Your task to perform on an android device: Play the last video I watched on Youtube Image 0: 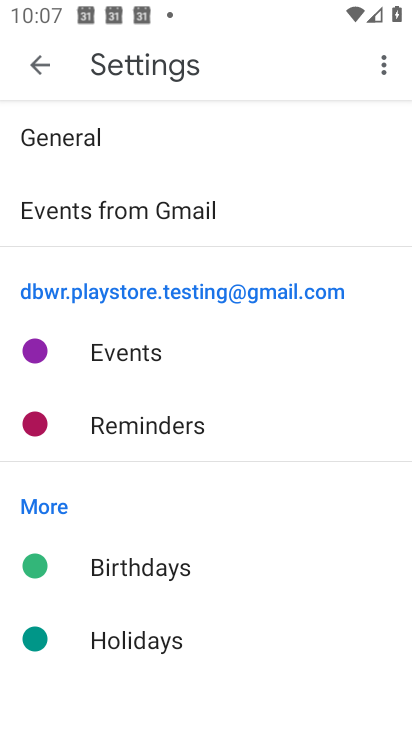
Step 0: press home button
Your task to perform on an android device: Play the last video I watched on Youtube Image 1: 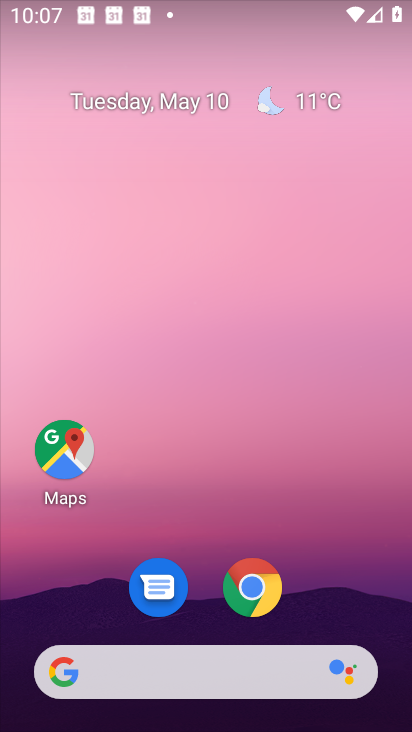
Step 1: drag from (363, 594) to (334, 205)
Your task to perform on an android device: Play the last video I watched on Youtube Image 2: 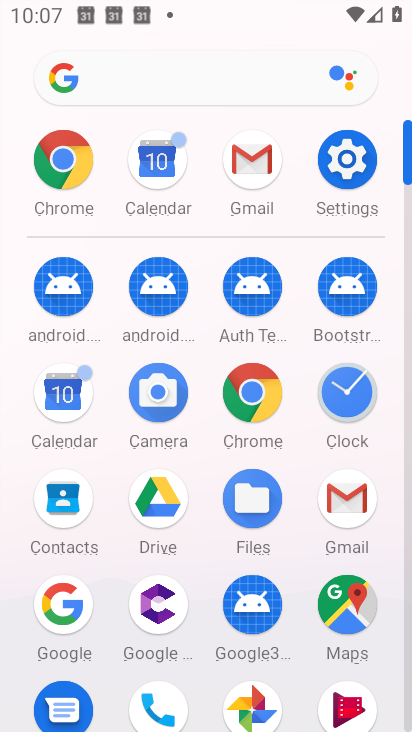
Step 2: drag from (295, 665) to (295, 202)
Your task to perform on an android device: Play the last video I watched on Youtube Image 3: 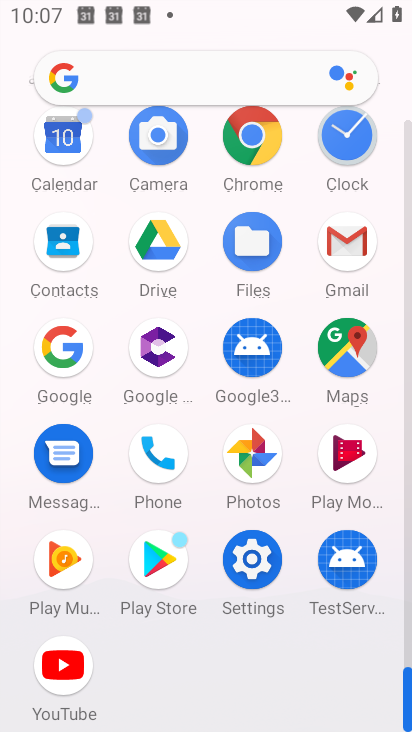
Step 3: click (77, 679)
Your task to perform on an android device: Play the last video I watched on Youtube Image 4: 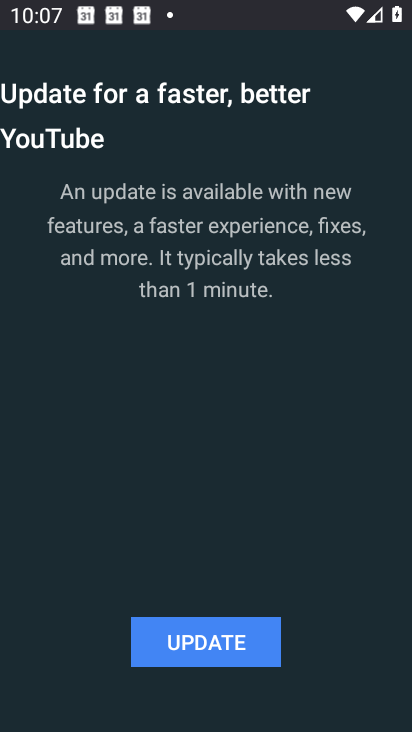
Step 4: click (213, 652)
Your task to perform on an android device: Play the last video I watched on Youtube Image 5: 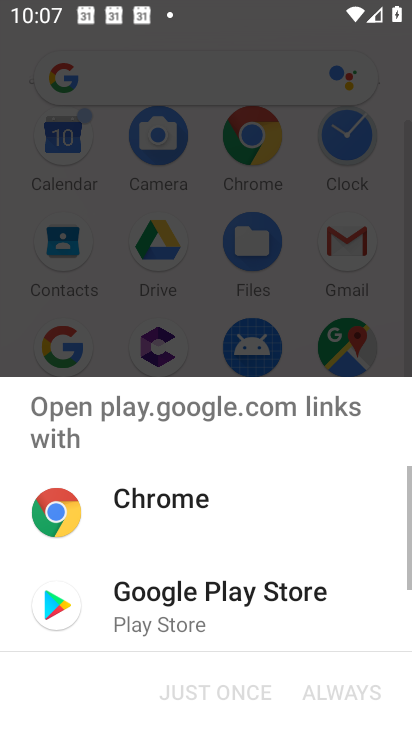
Step 5: click (198, 627)
Your task to perform on an android device: Play the last video I watched on Youtube Image 6: 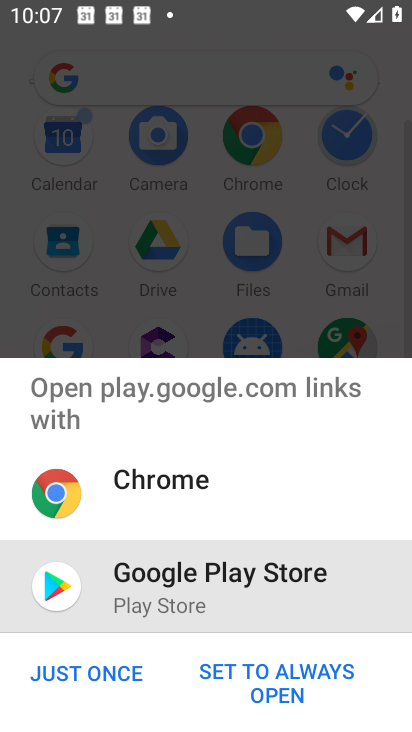
Step 6: click (74, 667)
Your task to perform on an android device: Play the last video I watched on Youtube Image 7: 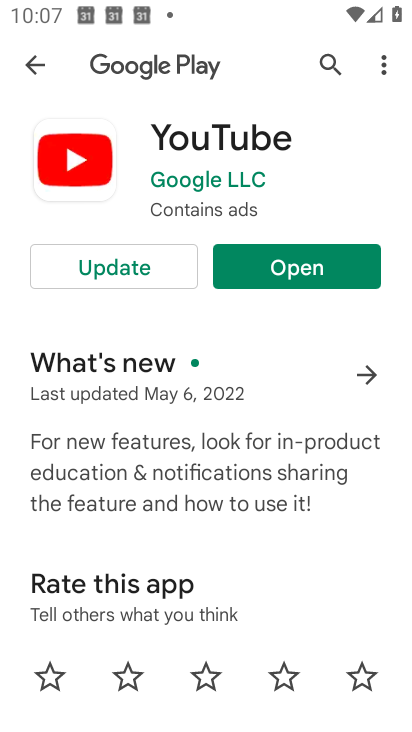
Step 7: click (166, 258)
Your task to perform on an android device: Play the last video I watched on Youtube Image 8: 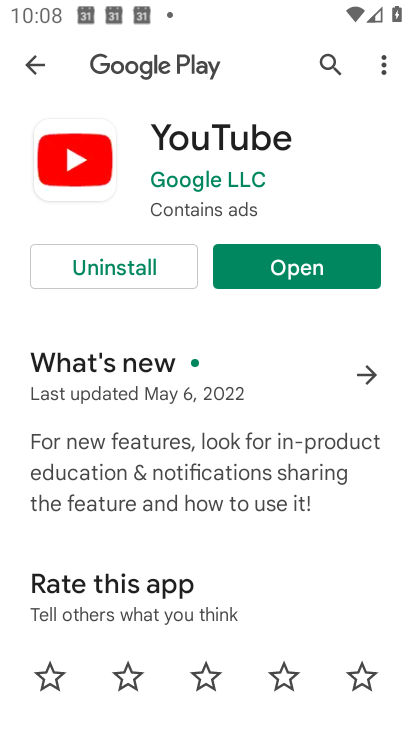
Step 8: click (296, 259)
Your task to perform on an android device: Play the last video I watched on Youtube Image 9: 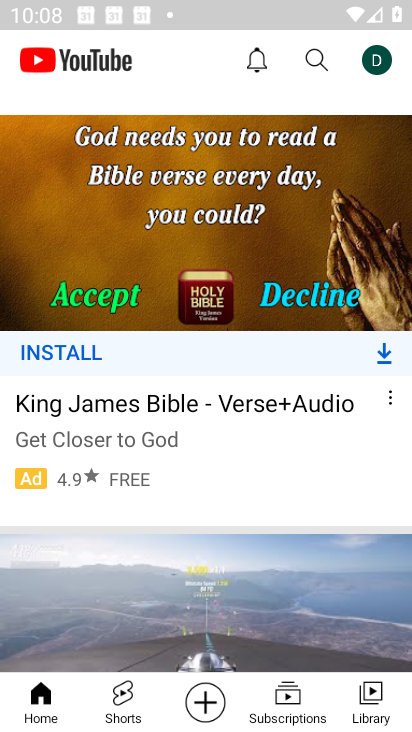
Step 9: click (370, 700)
Your task to perform on an android device: Play the last video I watched on Youtube Image 10: 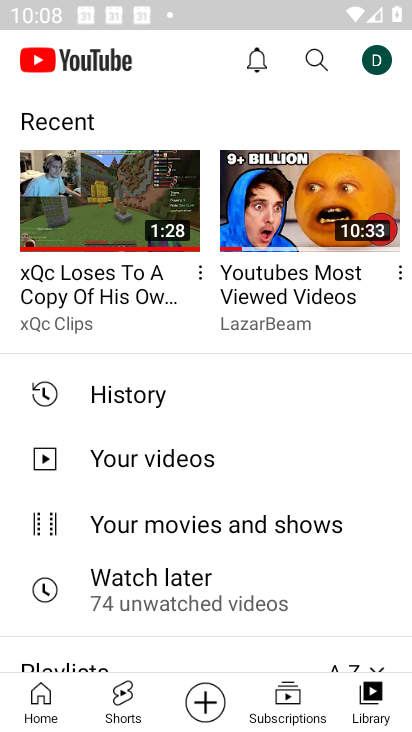
Step 10: task complete